Your task to perform on an android device: Open Chrome and go to settings Image 0: 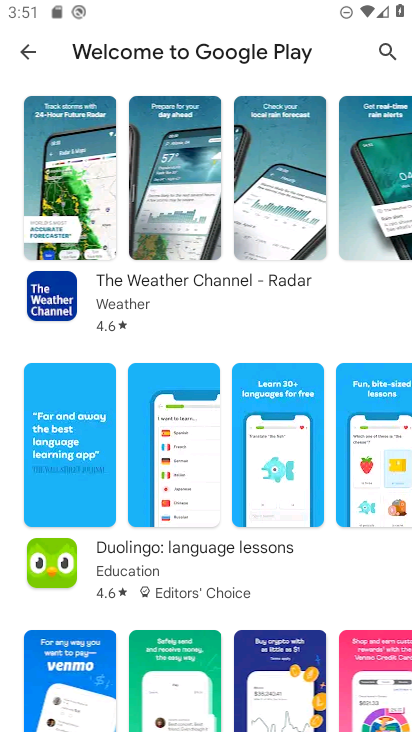
Step 0: press home button
Your task to perform on an android device: Open Chrome and go to settings Image 1: 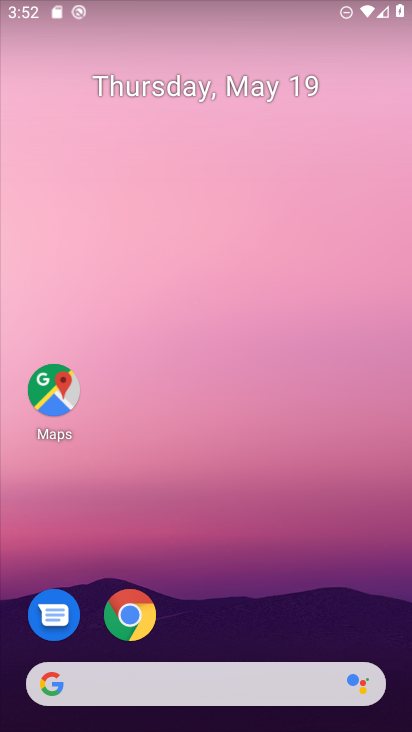
Step 1: click (143, 619)
Your task to perform on an android device: Open Chrome and go to settings Image 2: 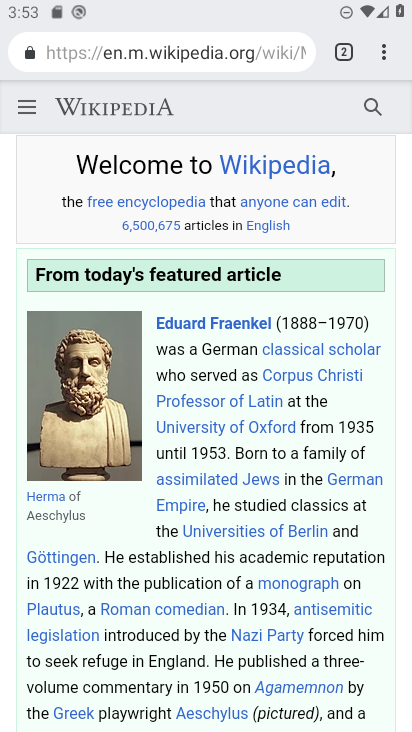
Step 2: click (395, 42)
Your task to perform on an android device: Open Chrome and go to settings Image 3: 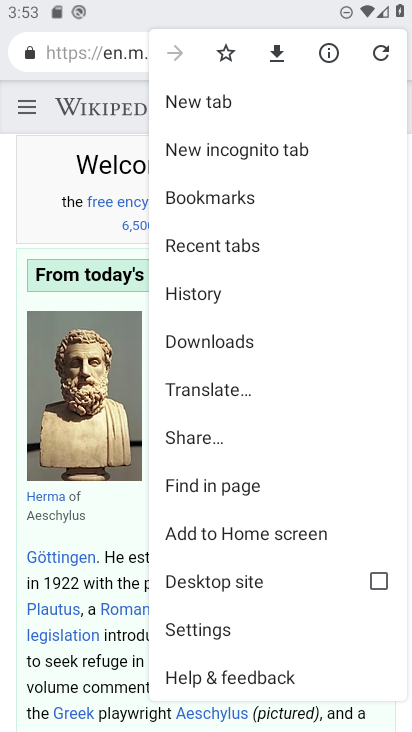
Step 3: click (265, 635)
Your task to perform on an android device: Open Chrome and go to settings Image 4: 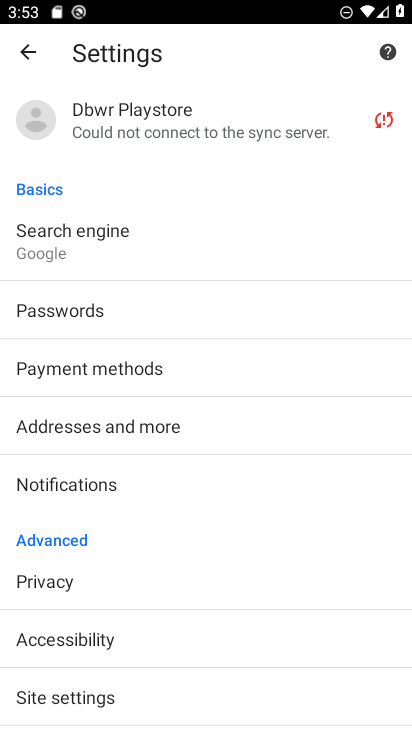
Step 4: task complete